Your task to perform on an android device: delete browsing data in the chrome app Image 0: 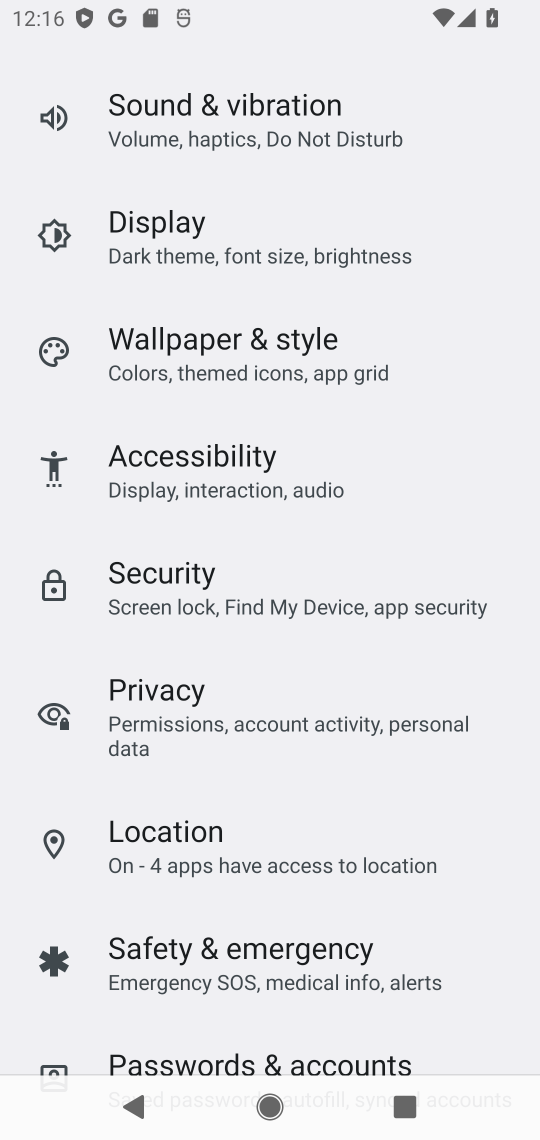
Step 0: press home button
Your task to perform on an android device: delete browsing data in the chrome app Image 1: 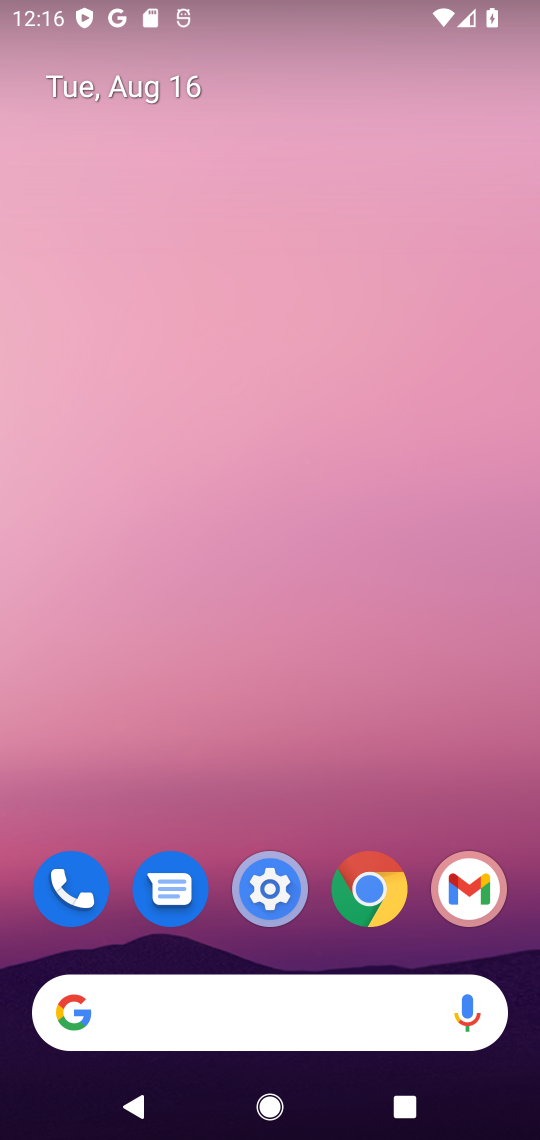
Step 1: drag from (299, 709) to (429, 0)
Your task to perform on an android device: delete browsing data in the chrome app Image 2: 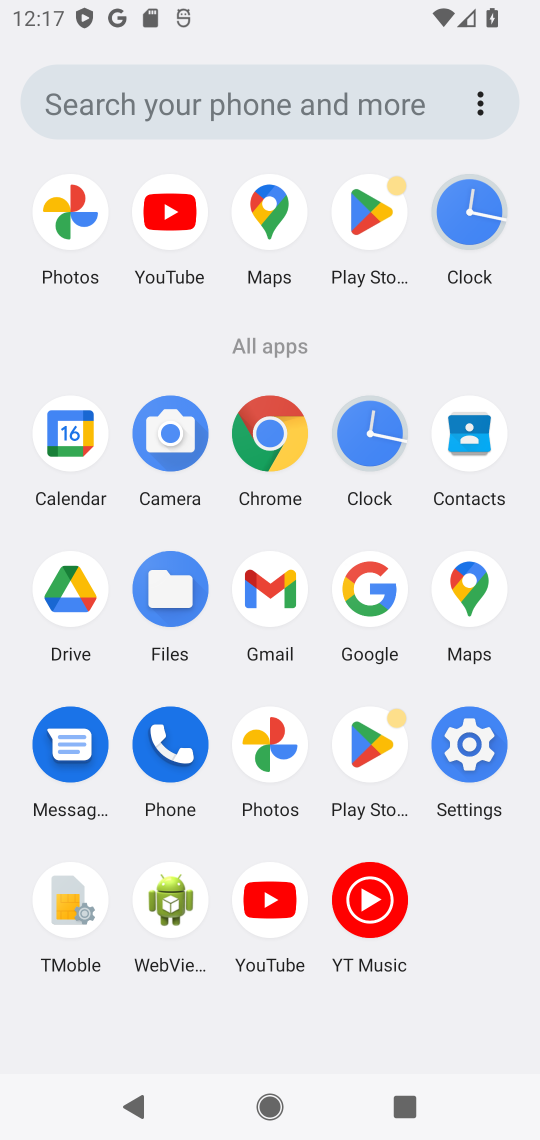
Step 2: click (266, 435)
Your task to perform on an android device: delete browsing data in the chrome app Image 3: 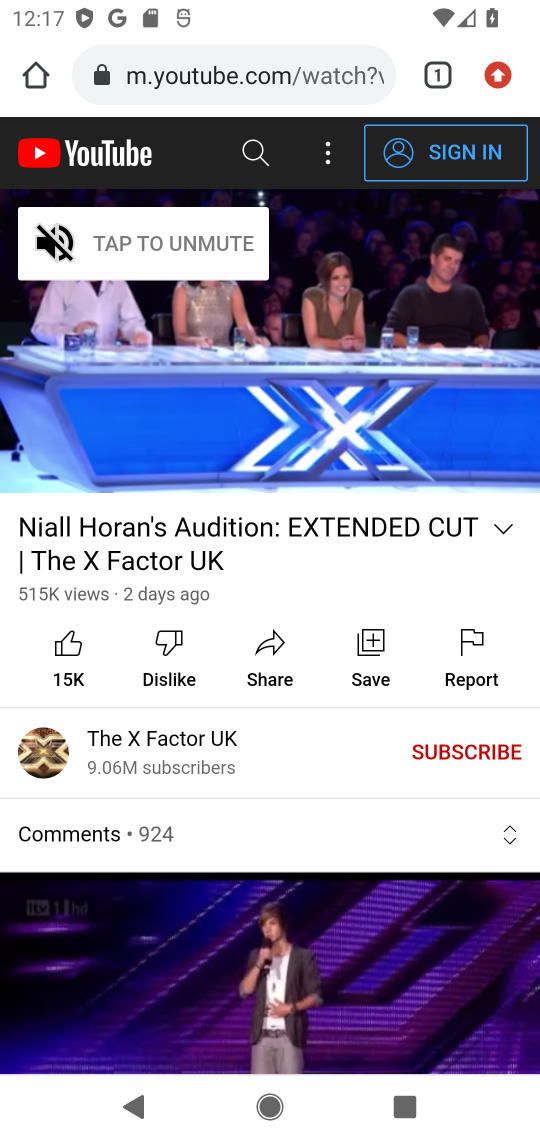
Step 3: click (484, 80)
Your task to perform on an android device: delete browsing data in the chrome app Image 4: 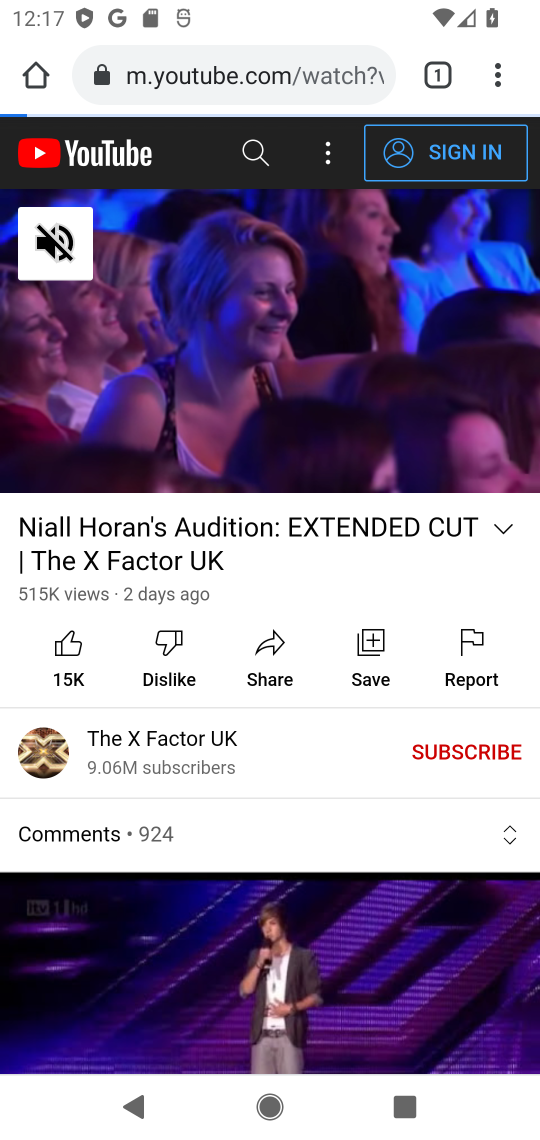
Step 4: press home button
Your task to perform on an android device: delete browsing data in the chrome app Image 5: 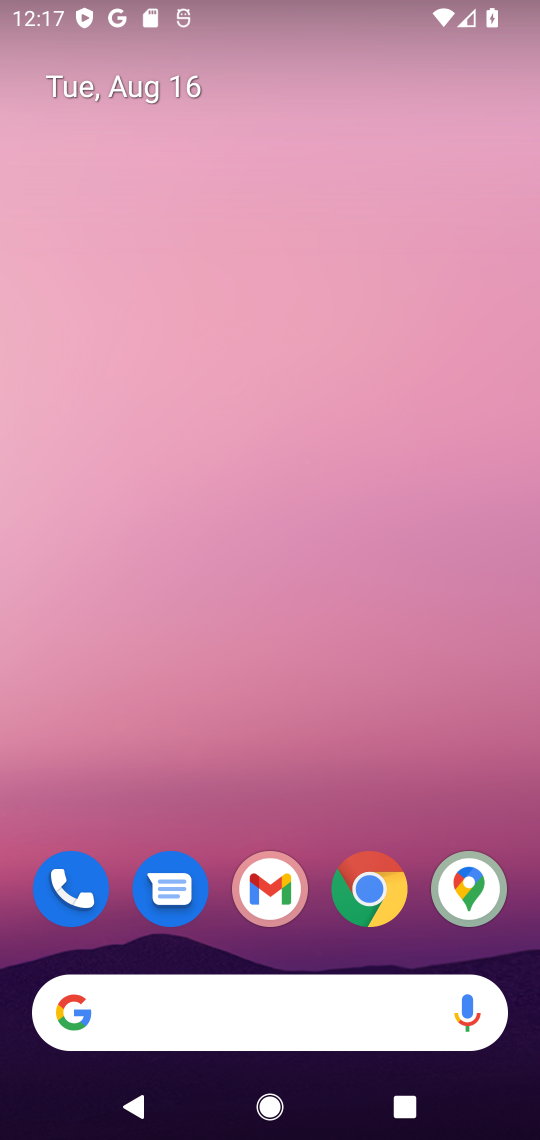
Step 5: drag from (194, 851) to (376, 7)
Your task to perform on an android device: delete browsing data in the chrome app Image 6: 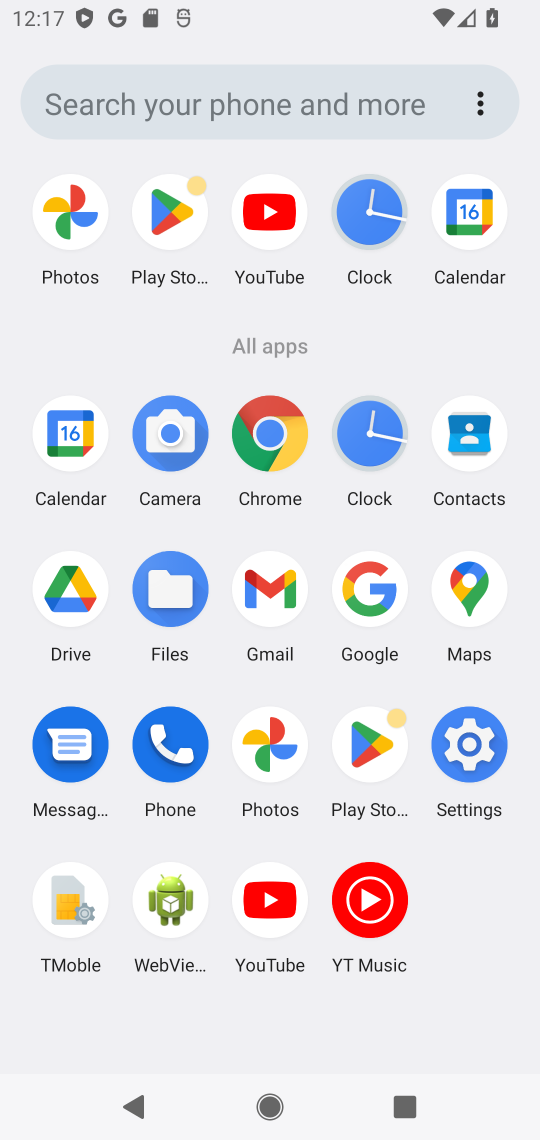
Step 6: click (285, 425)
Your task to perform on an android device: delete browsing data in the chrome app Image 7: 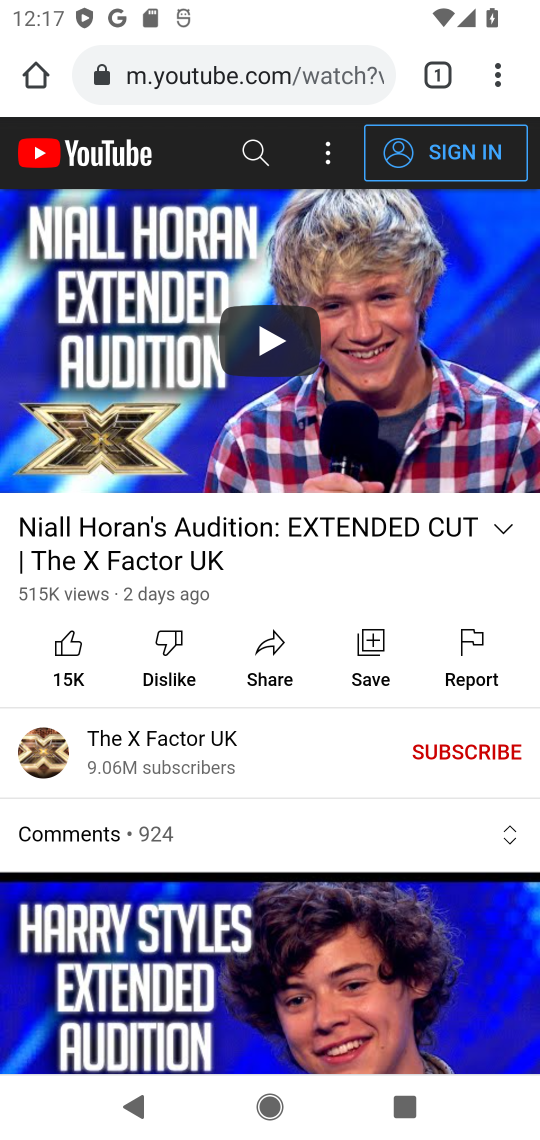
Step 7: click (98, 1121)
Your task to perform on an android device: delete browsing data in the chrome app Image 8: 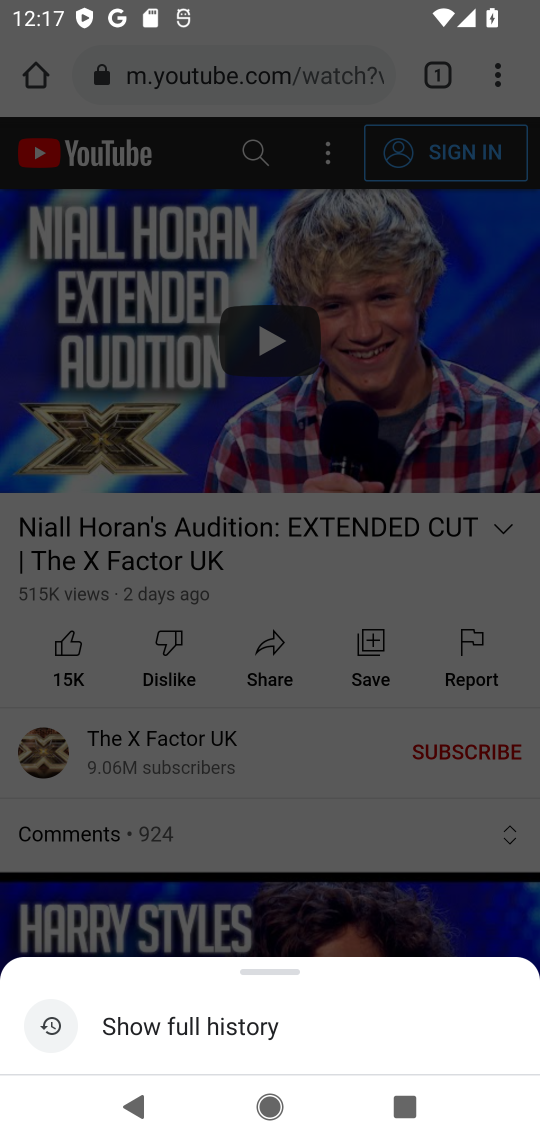
Step 8: click (98, 1121)
Your task to perform on an android device: delete browsing data in the chrome app Image 9: 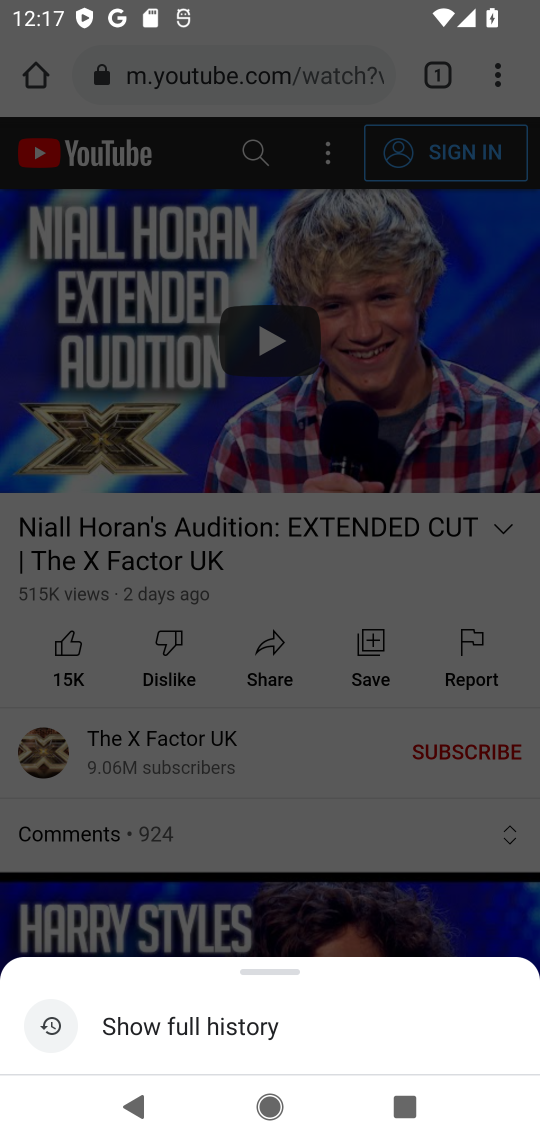
Step 9: press back button
Your task to perform on an android device: delete browsing data in the chrome app Image 10: 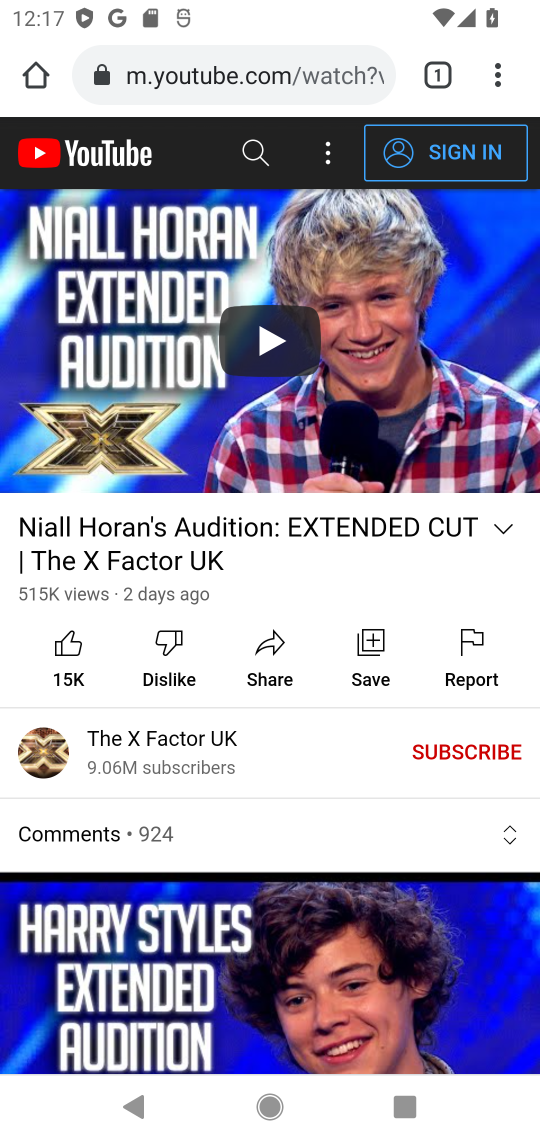
Step 10: press back button
Your task to perform on an android device: delete browsing data in the chrome app Image 11: 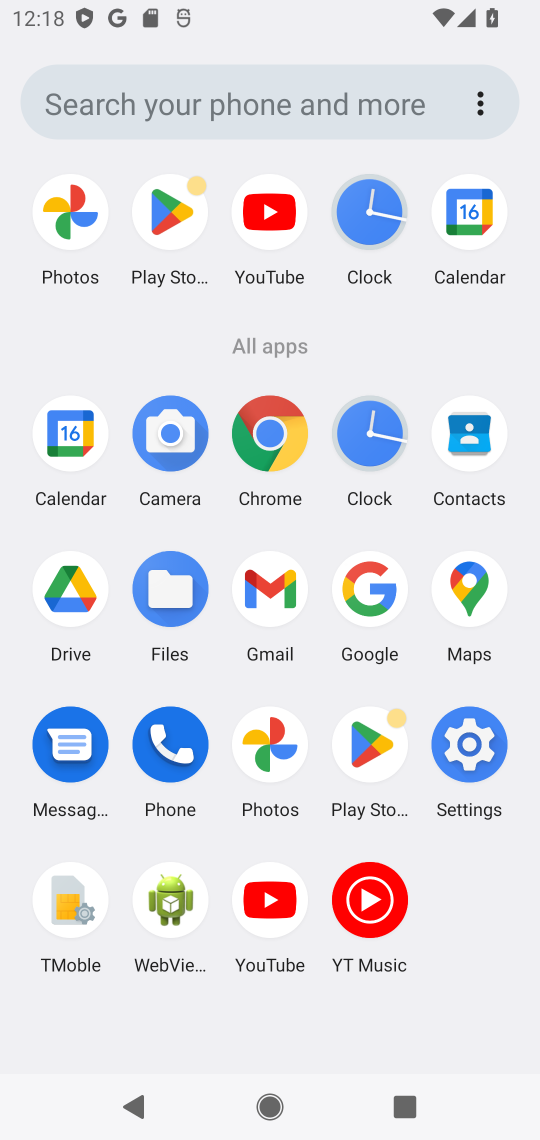
Step 11: click (280, 456)
Your task to perform on an android device: delete browsing data in the chrome app Image 12: 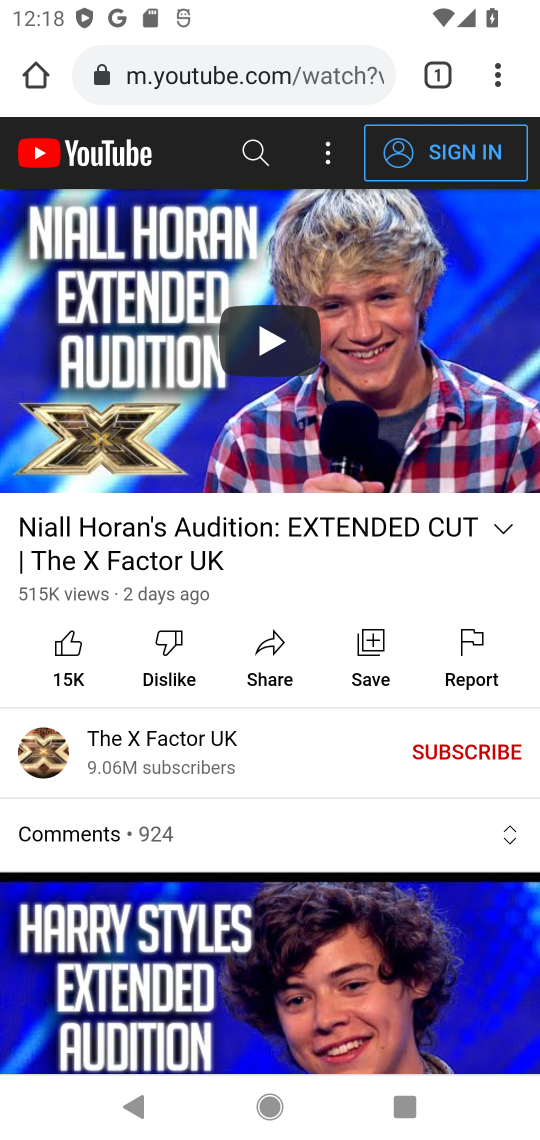
Step 12: drag from (535, 75) to (247, 405)
Your task to perform on an android device: delete browsing data in the chrome app Image 13: 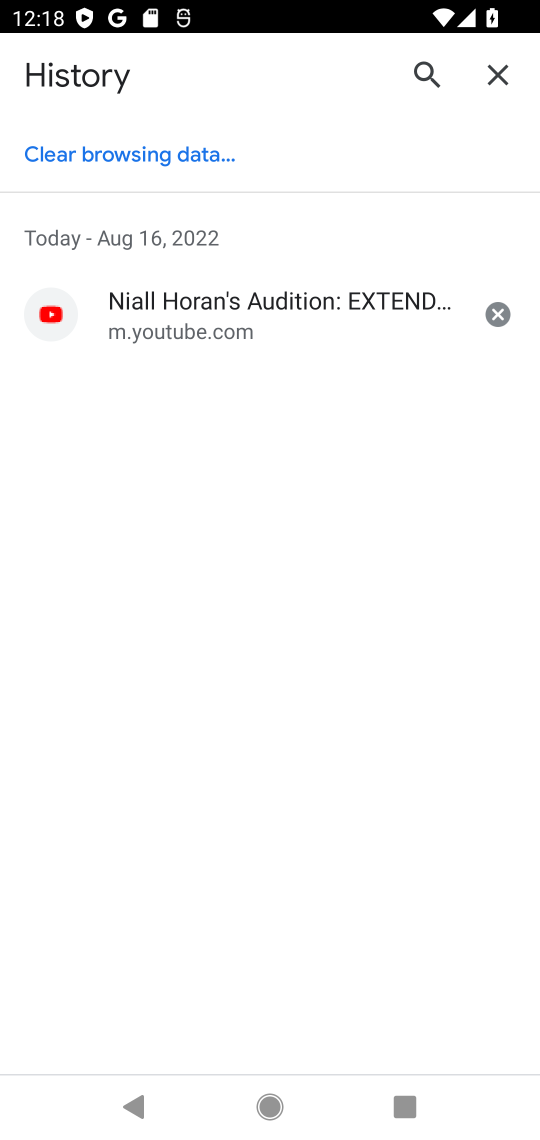
Step 13: click (129, 143)
Your task to perform on an android device: delete browsing data in the chrome app Image 14: 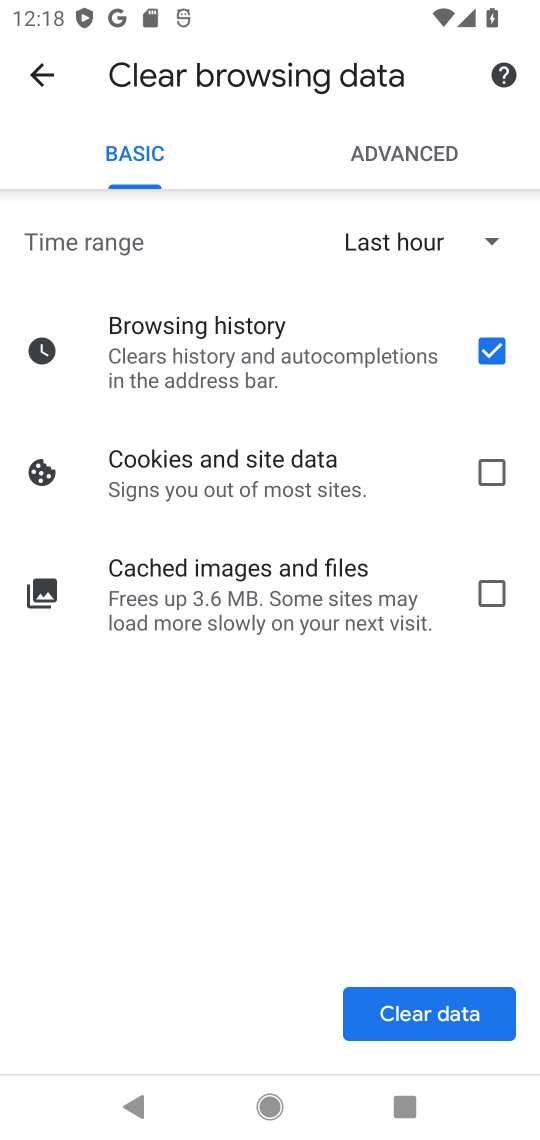
Step 14: click (409, 1015)
Your task to perform on an android device: delete browsing data in the chrome app Image 15: 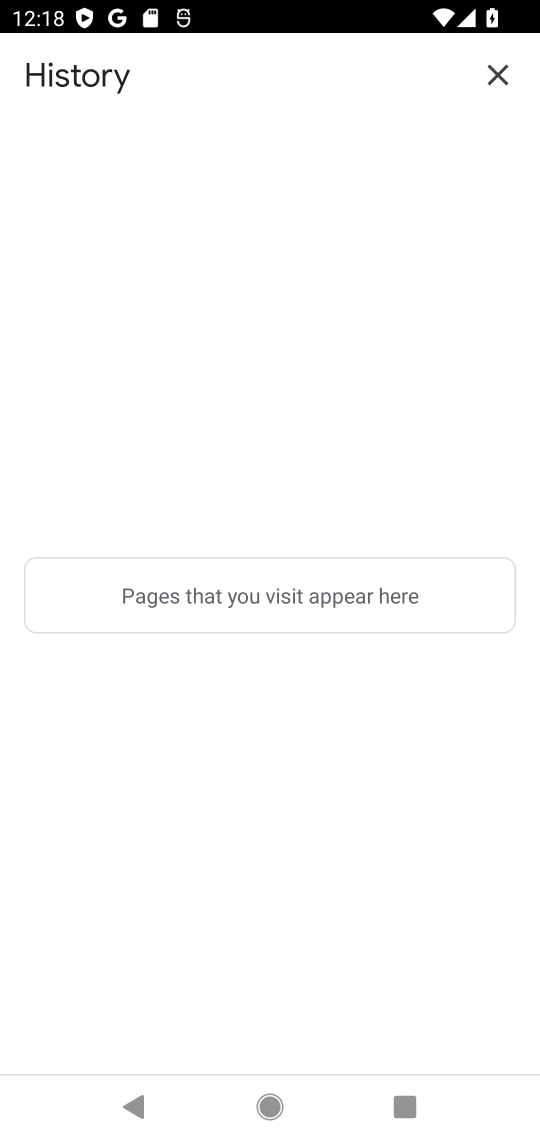
Step 15: task complete